Your task to perform on an android device: Go to Amazon Image 0: 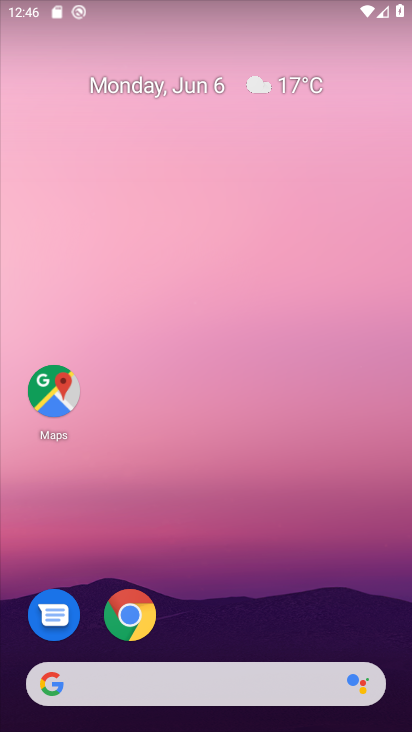
Step 0: click (122, 632)
Your task to perform on an android device: Go to Amazon Image 1: 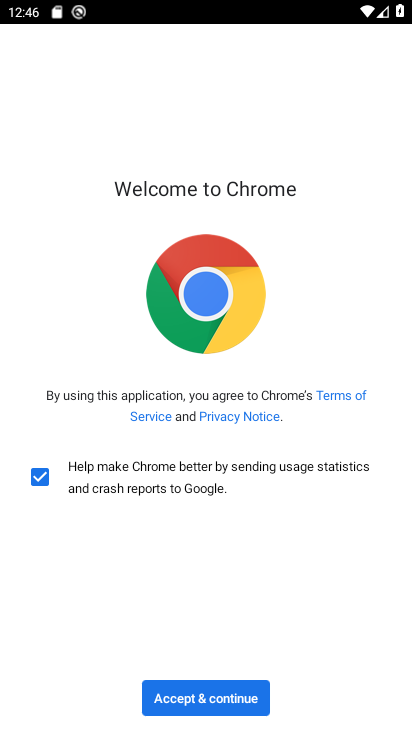
Step 1: click (182, 707)
Your task to perform on an android device: Go to Amazon Image 2: 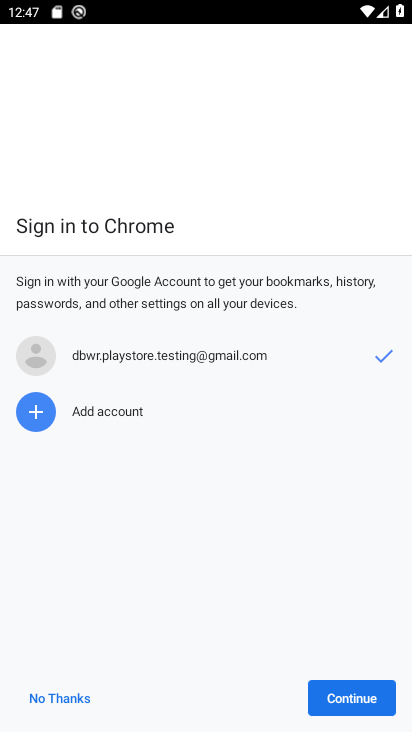
Step 2: click (349, 702)
Your task to perform on an android device: Go to Amazon Image 3: 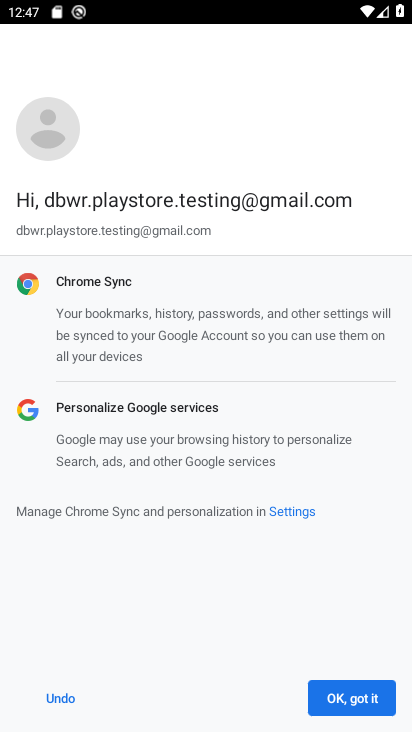
Step 3: click (323, 708)
Your task to perform on an android device: Go to Amazon Image 4: 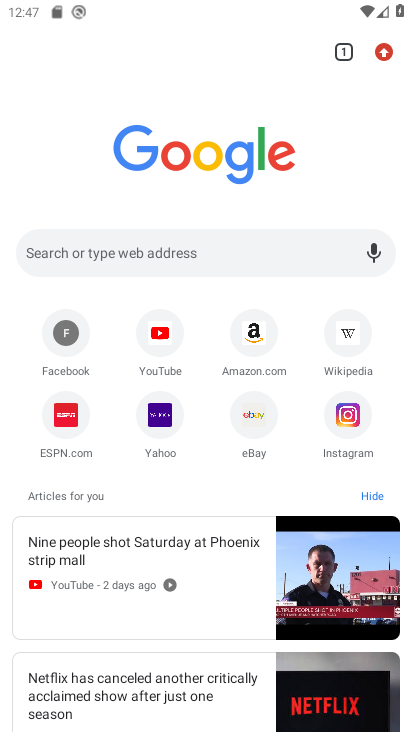
Step 4: click (233, 323)
Your task to perform on an android device: Go to Amazon Image 5: 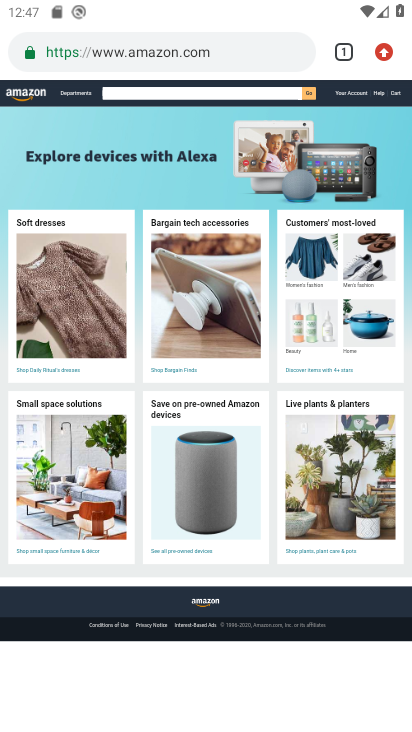
Step 5: task complete